Your task to perform on an android device: Open my contact list Image 0: 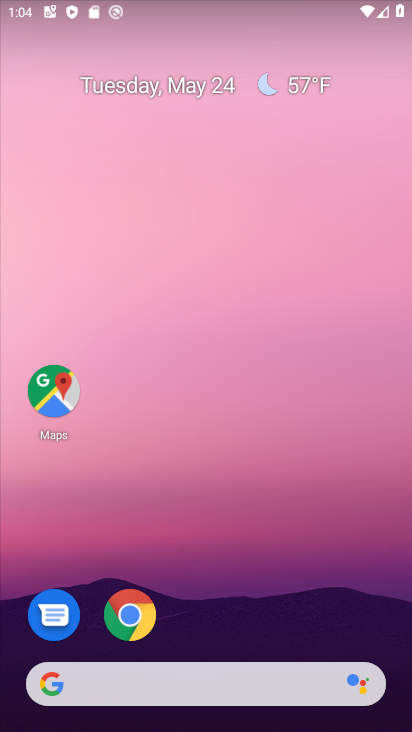
Step 0: drag from (300, 655) to (291, 240)
Your task to perform on an android device: Open my contact list Image 1: 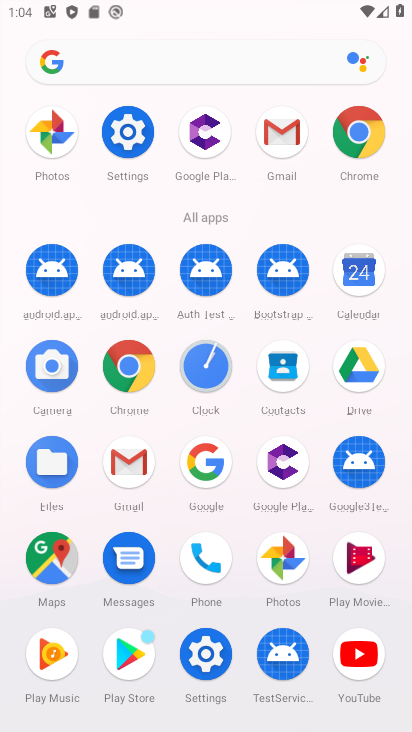
Step 1: click (272, 370)
Your task to perform on an android device: Open my contact list Image 2: 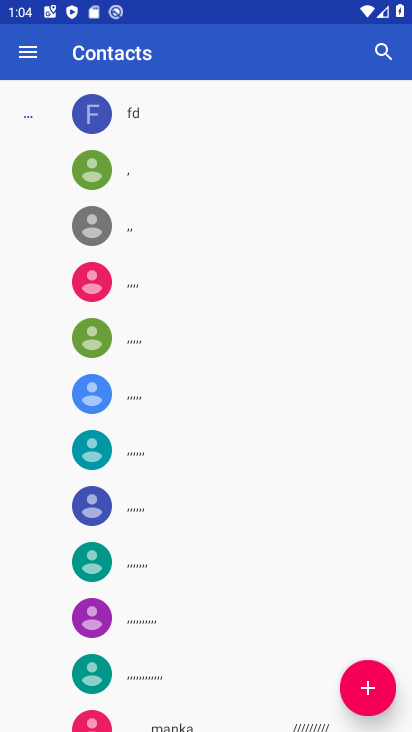
Step 2: task complete